Your task to perform on an android device: move an email to a new category in the gmail app Image 0: 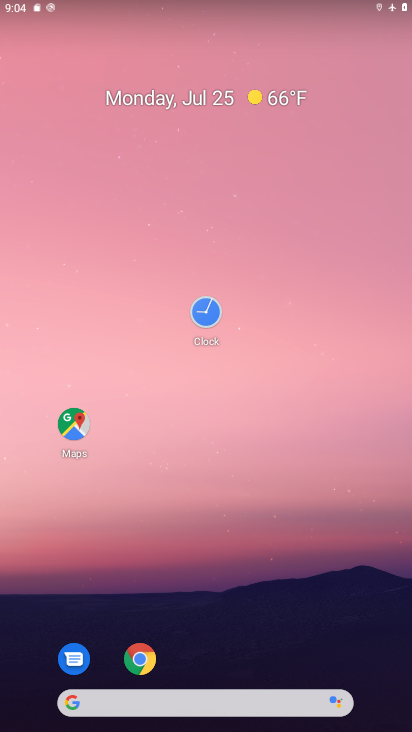
Step 0: drag from (187, 650) to (141, 200)
Your task to perform on an android device: move an email to a new category in the gmail app Image 1: 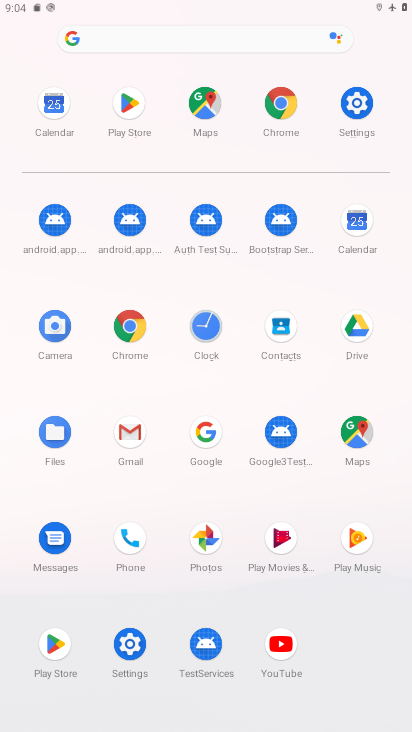
Step 1: click (125, 423)
Your task to perform on an android device: move an email to a new category in the gmail app Image 2: 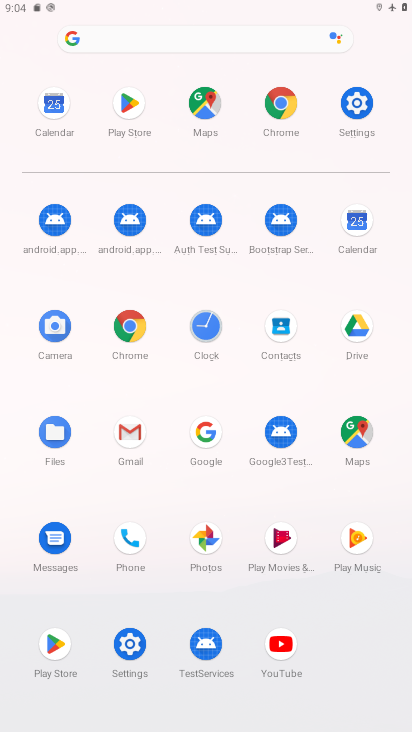
Step 2: click (122, 431)
Your task to perform on an android device: move an email to a new category in the gmail app Image 3: 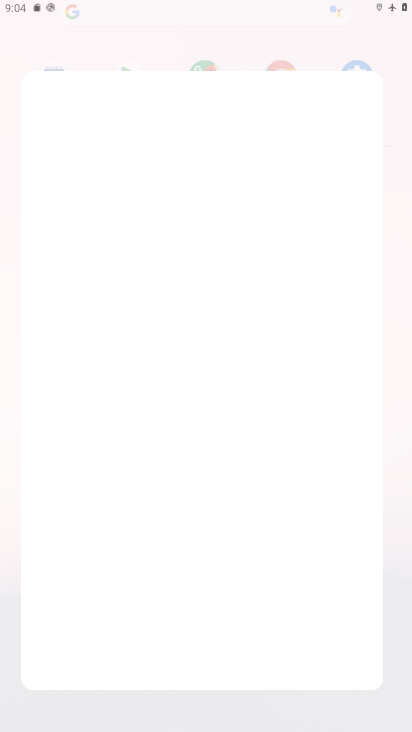
Step 3: click (125, 432)
Your task to perform on an android device: move an email to a new category in the gmail app Image 4: 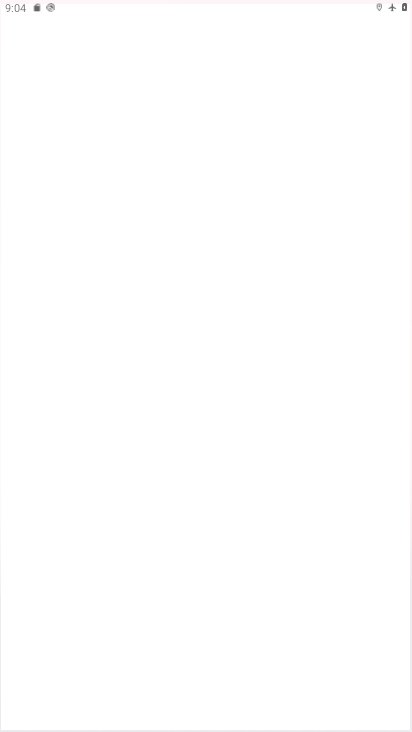
Step 4: click (125, 432)
Your task to perform on an android device: move an email to a new category in the gmail app Image 5: 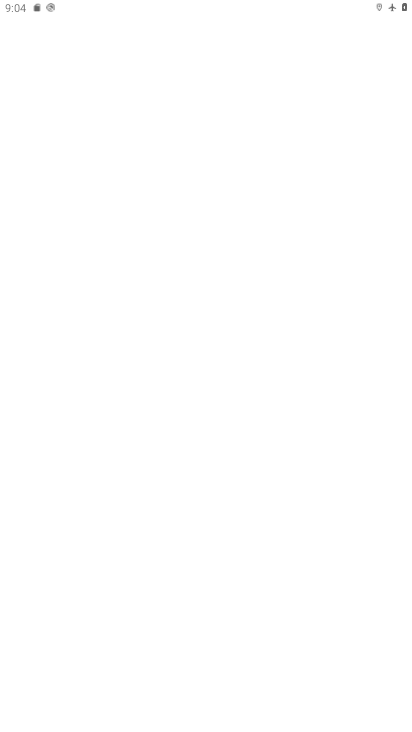
Step 5: click (128, 429)
Your task to perform on an android device: move an email to a new category in the gmail app Image 6: 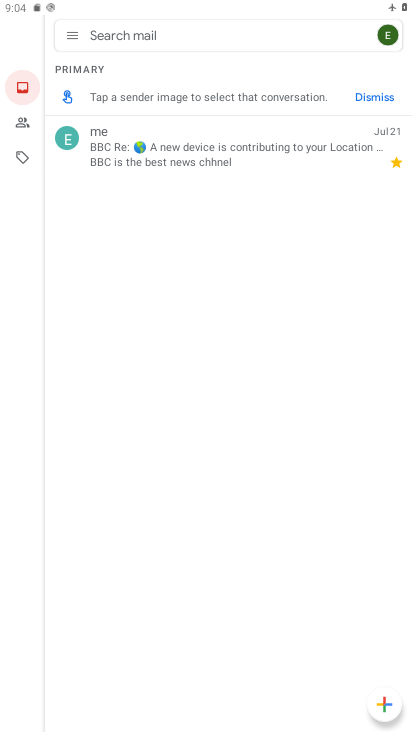
Step 6: click (68, 33)
Your task to perform on an android device: move an email to a new category in the gmail app Image 7: 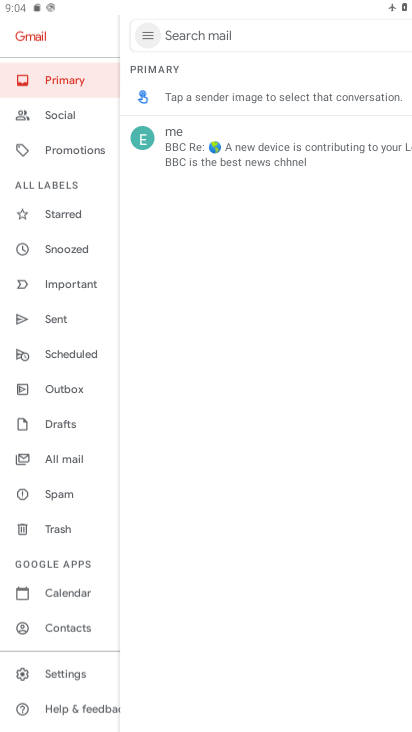
Step 7: click (71, 32)
Your task to perform on an android device: move an email to a new category in the gmail app Image 8: 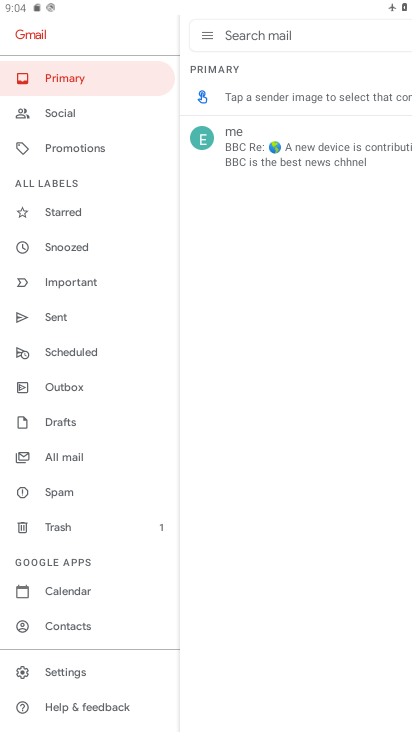
Step 8: click (283, 264)
Your task to perform on an android device: move an email to a new category in the gmail app Image 9: 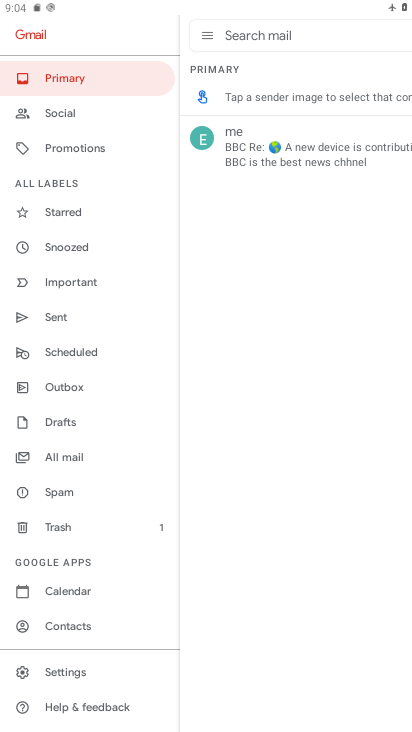
Step 9: click (221, 270)
Your task to perform on an android device: move an email to a new category in the gmail app Image 10: 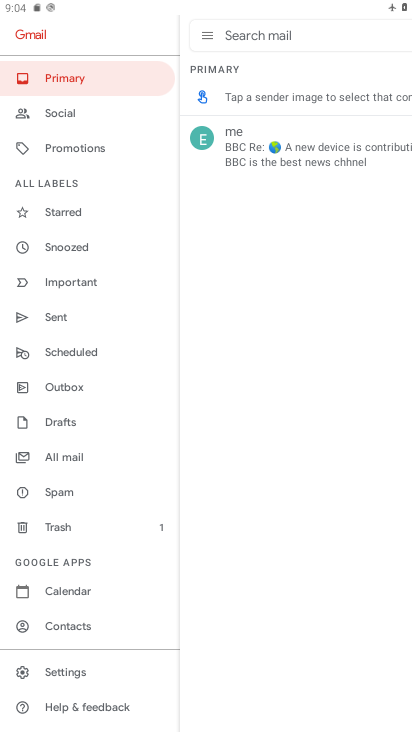
Step 10: click (220, 261)
Your task to perform on an android device: move an email to a new category in the gmail app Image 11: 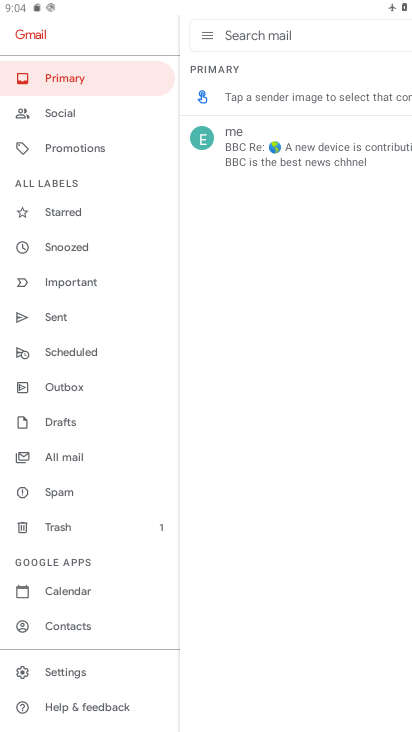
Step 11: click (227, 262)
Your task to perform on an android device: move an email to a new category in the gmail app Image 12: 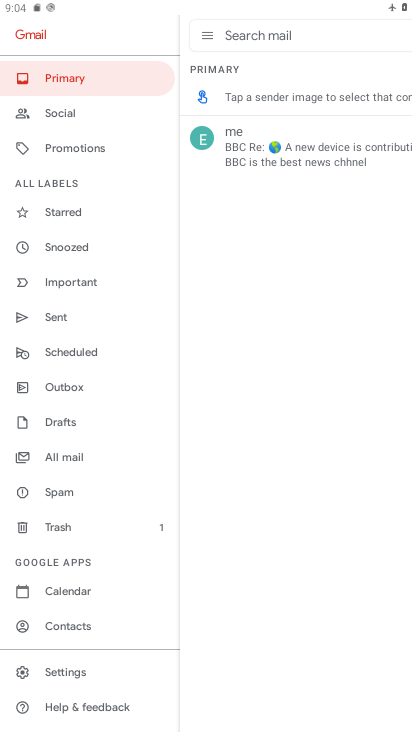
Step 12: click (204, 186)
Your task to perform on an android device: move an email to a new category in the gmail app Image 13: 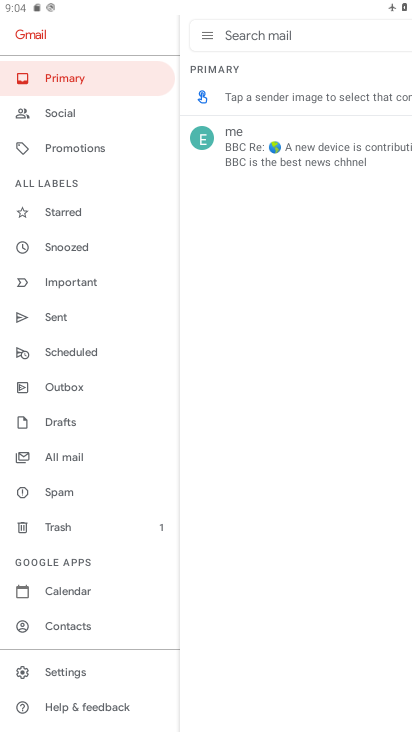
Step 13: click (208, 183)
Your task to perform on an android device: move an email to a new category in the gmail app Image 14: 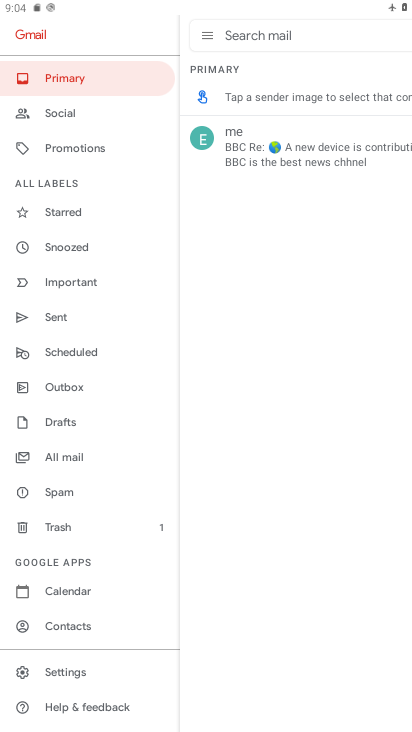
Step 14: click (220, 180)
Your task to perform on an android device: move an email to a new category in the gmail app Image 15: 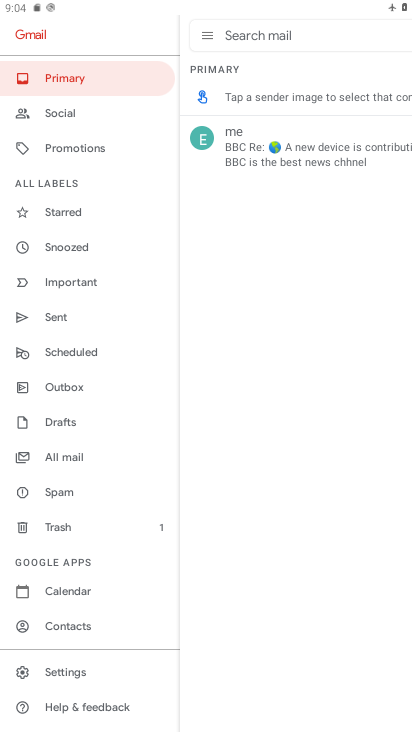
Step 15: click (237, 176)
Your task to perform on an android device: move an email to a new category in the gmail app Image 16: 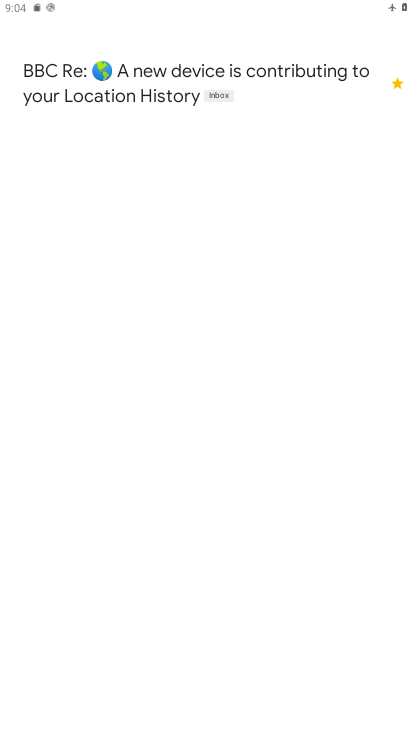
Step 16: click (301, 60)
Your task to perform on an android device: move an email to a new category in the gmail app Image 17: 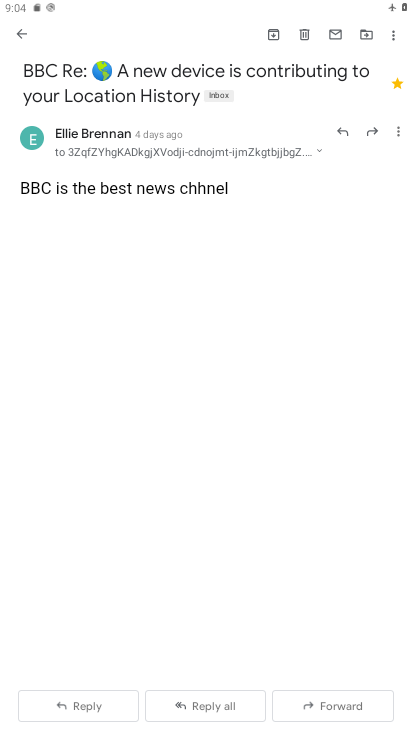
Step 17: click (399, 81)
Your task to perform on an android device: move an email to a new category in the gmail app Image 18: 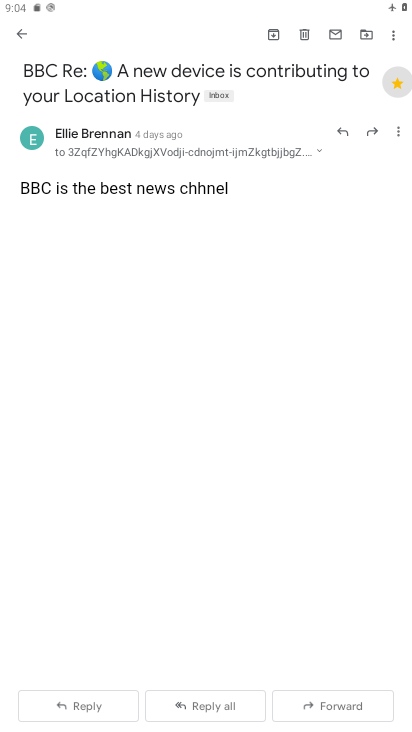
Step 18: click (402, 82)
Your task to perform on an android device: move an email to a new category in the gmail app Image 19: 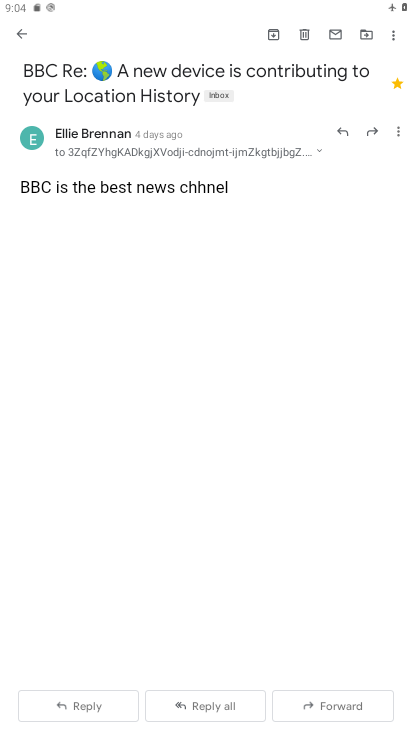
Step 19: click (398, 88)
Your task to perform on an android device: move an email to a new category in the gmail app Image 20: 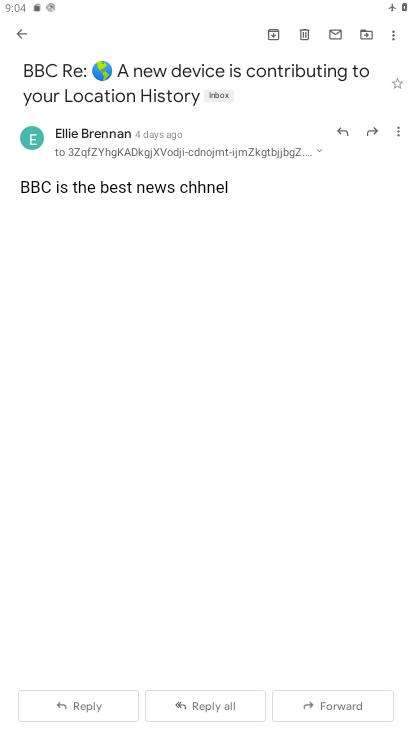
Step 20: task complete